Your task to perform on an android device: delete a single message in the gmail app Image 0: 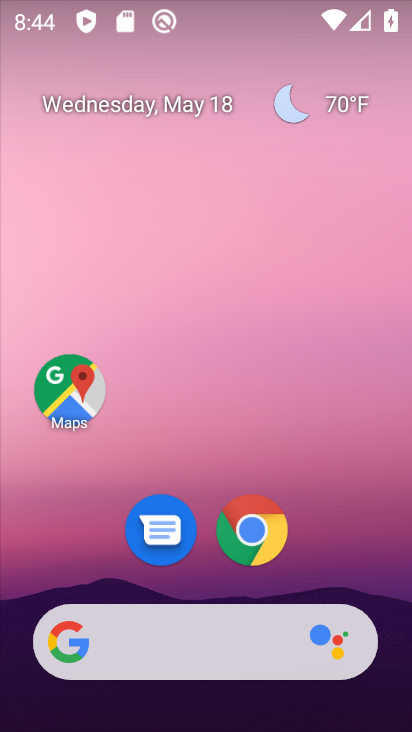
Step 0: drag from (354, 556) to (225, 190)
Your task to perform on an android device: delete a single message in the gmail app Image 1: 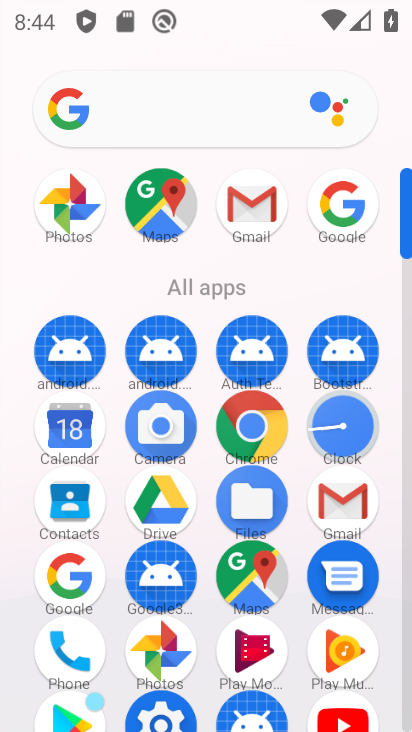
Step 1: click (248, 201)
Your task to perform on an android device: delete a single message in the gmail app Image 2: 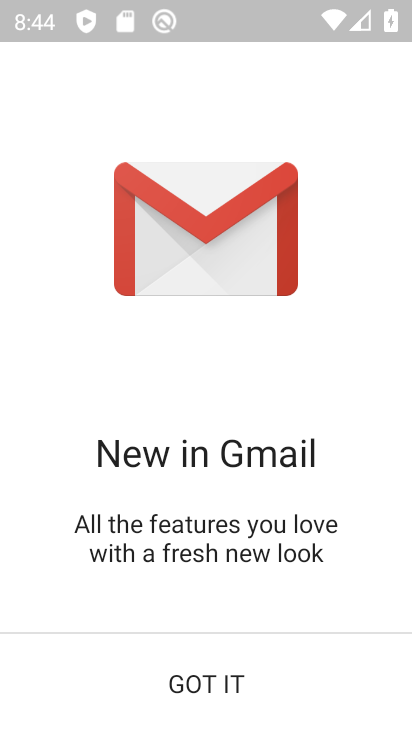
Step 2: click (198, 681)
Your task to perform on an android device: delete a single message in the gmail app Image 3: 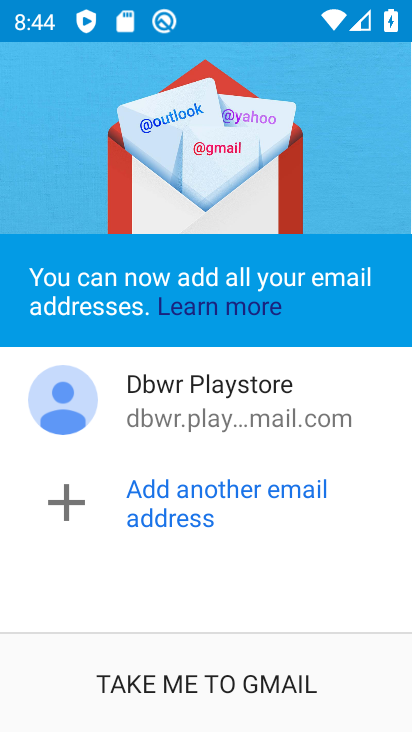
Step 3: click (198, 681)
Your task to perform on an android device: delete a single message in the gmail app Image 4: 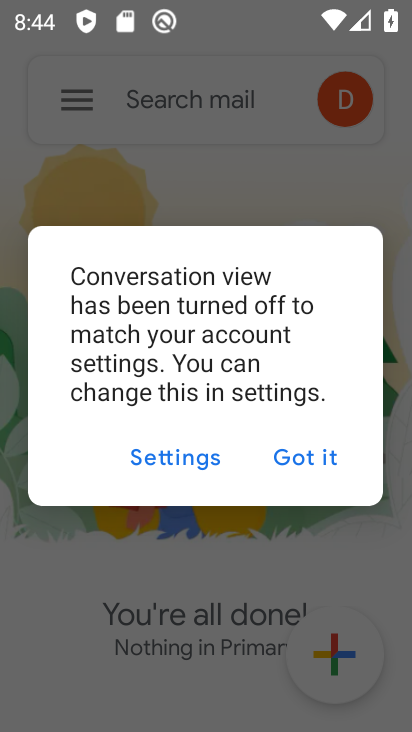
Step 4: click (309, 463)
Your task to perform on an android device: delete a single message in the gmail app Image 5: 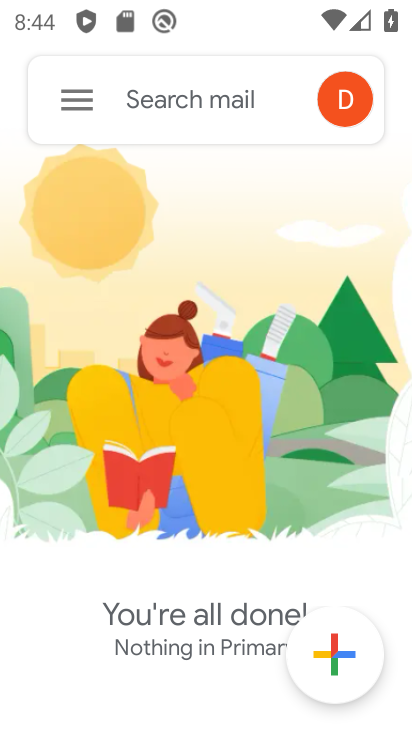
Step 5: click (86, 94)
Your task to perform on an android device: delete a single message in the gmail app Image 6: 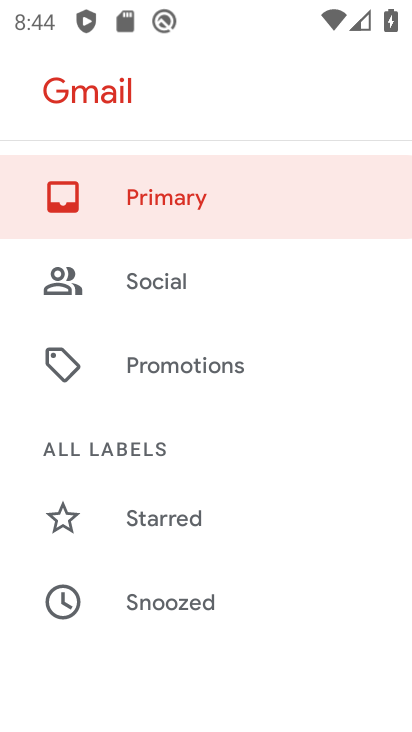
Step 6: drag from (221, 481) to (229, 316)
Your task to perform on an android device: delete a single message in the gmail app Image 7: 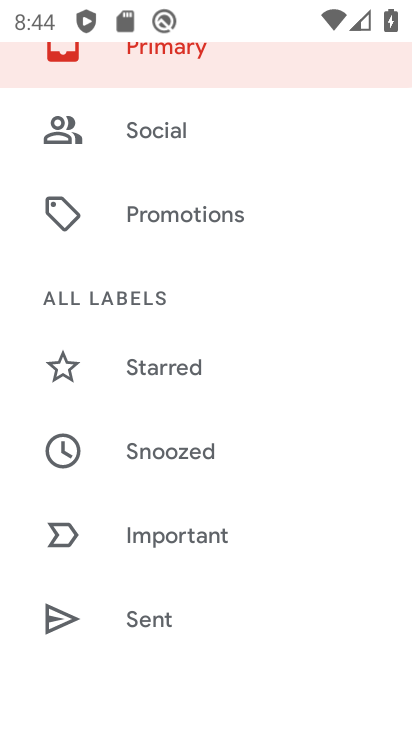
Step 7: drag from (194, 479) to (221, 346)
Your task to perform on an android device: delete a single message in the gmail app Image 8: 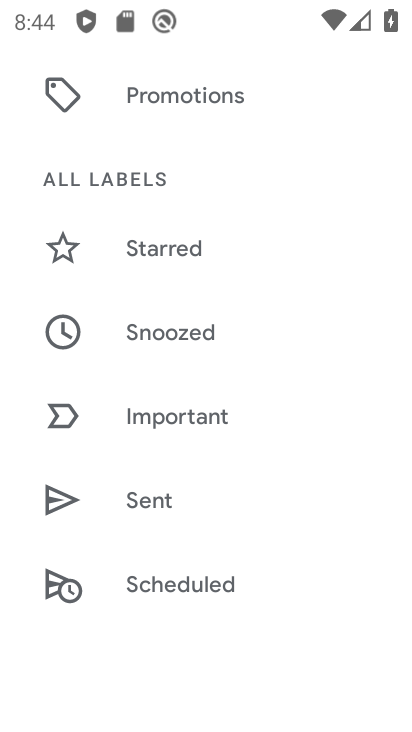
Step 8: drag from (218, 525) to (229, 375)
Your task to perform on an android device: delete a single message in the gmail app Image 9: 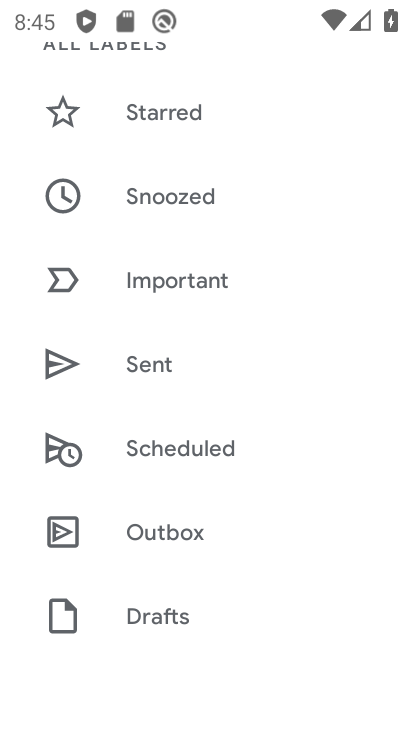
Step 9: drag from (159, 587) to (187, 431)
Your task to perform on an android device: delete a single message in the gmail app Image 10: 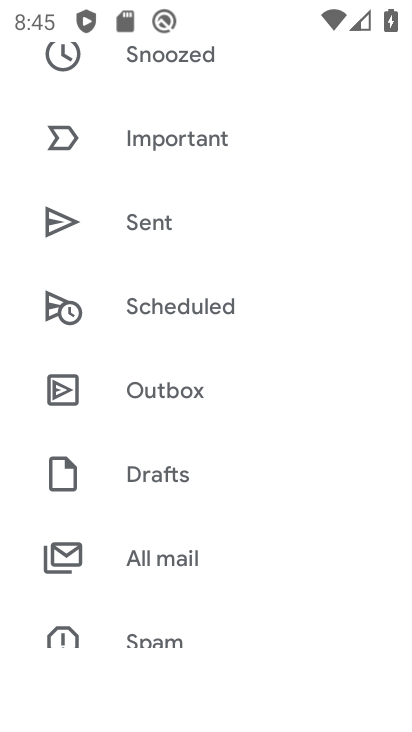
Step 10: drag from (194, 524) to (228, 362)
Your task to perform on an android device: delete a single message in the gmail app Image 11: 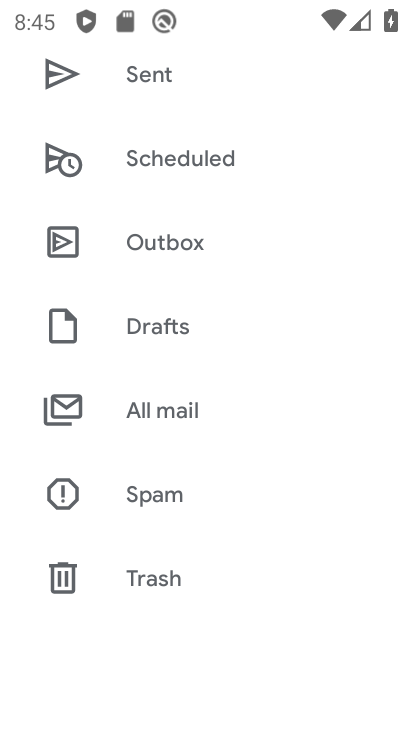
Step 11: drag from (168, 533) to (178, 436)
Your task to perform on an android device: delete a single message in the gmail app Image 12: 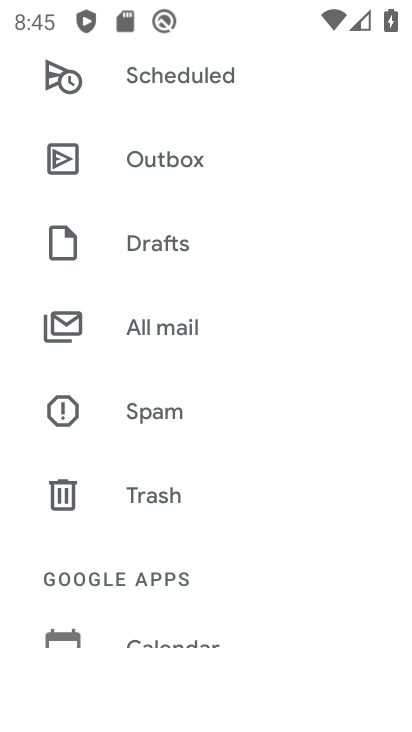
Step 12: click (175, 335)
Your task to perform on an android device: delete a single message in the gmail app Image 13: 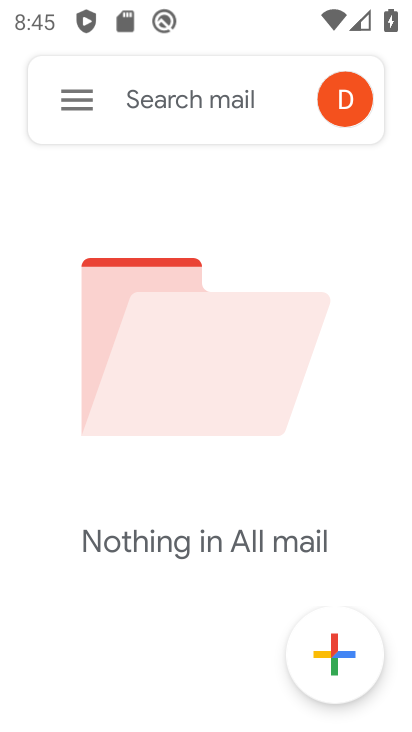
Step 13: task complete